Your task to perform on an android device: check android version Image 0: 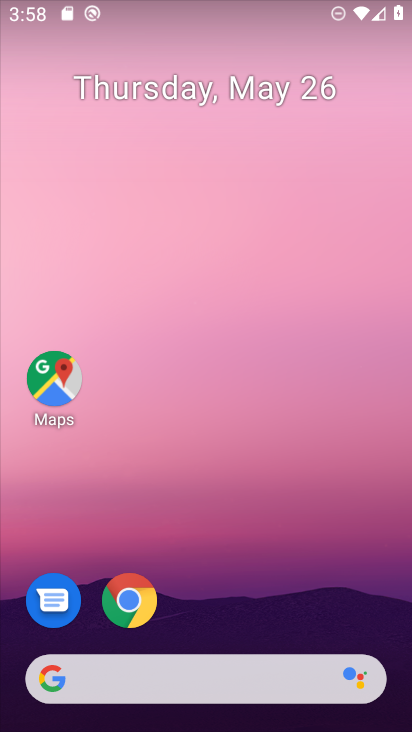
Step 0: drag from (235, 550) to (197, 55)
Your task to perform on an android device: check android version Image 1: 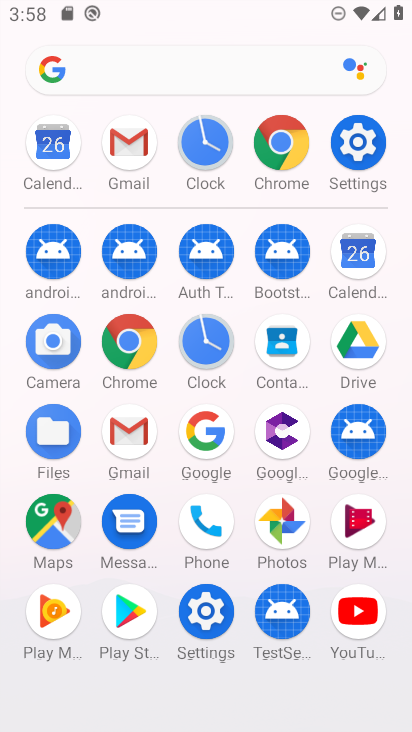
Step 1: drag from (13, 575) to (3, 274)
Your task to perform on an android device: check android version Image 2: 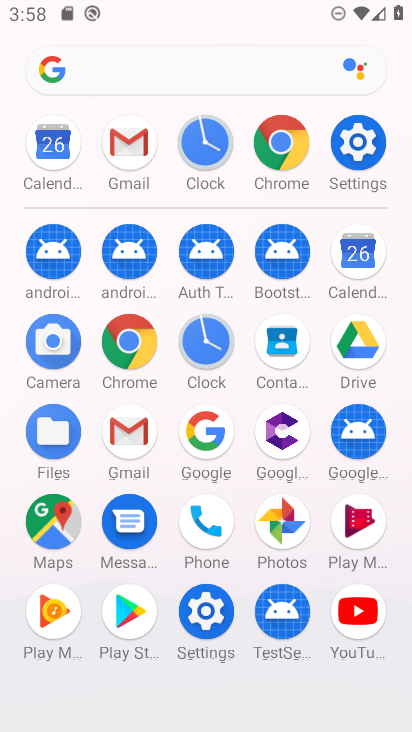
Step 2: click (203, 616)
Your task to perform on an android device: check android version Image 3: 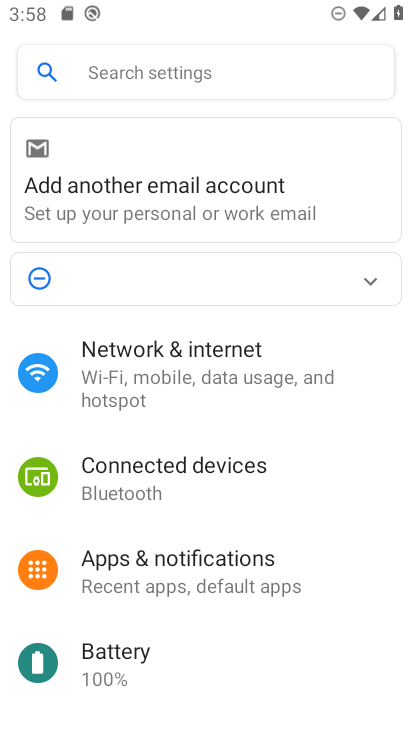
Step 3: drag from (286, 633) to (260, 182)
Your task to perform on an android device: check android version Image 4: 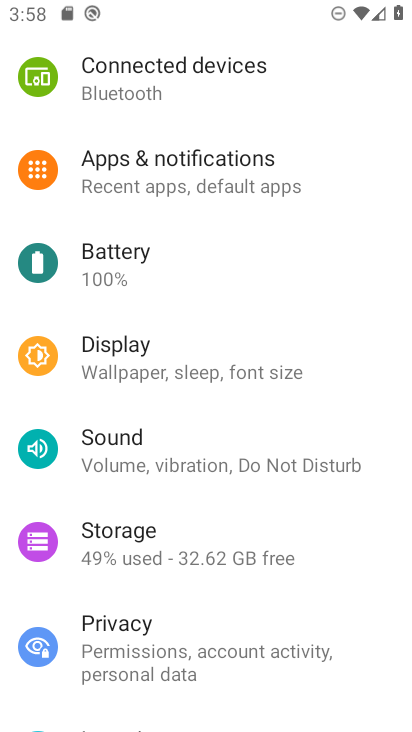
Step 4: drag from (206, 619) to (238, 106)
Your task to perform on an android device: check android version Image 5: 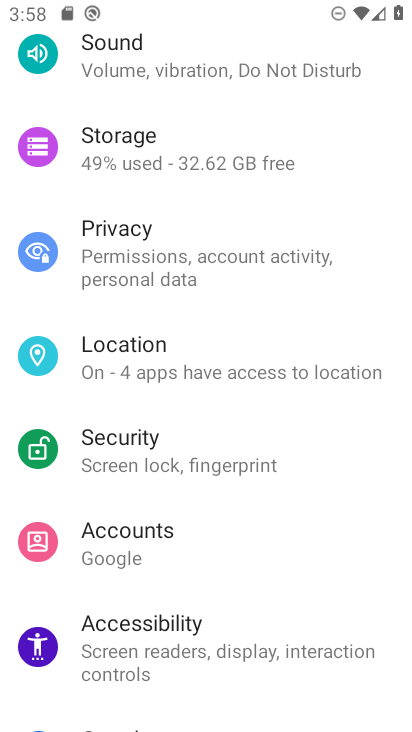
Step 5: drag from (197, 645) to (229, 120)
Your task to perform on an android device: check android version Image 6: 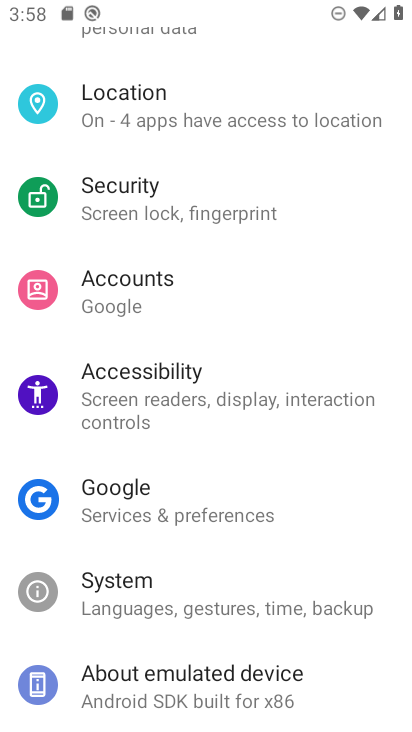
Step 6: click (180, 681)
Your task to perform on an android device: check android version Image 7: 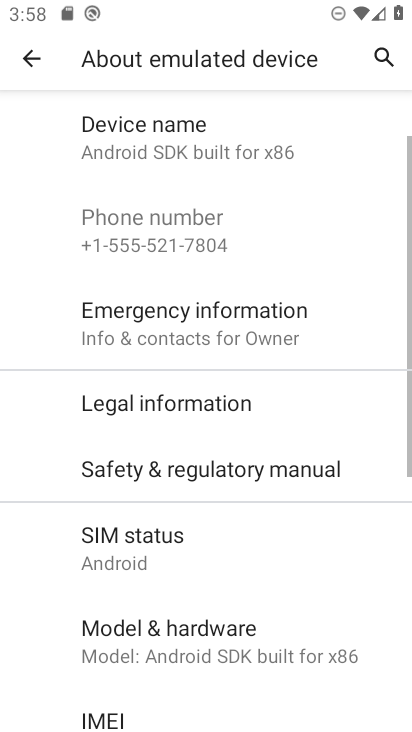
Step 7: task complete